Your task to perform on an android device: Open calendar and show me the second week of next month Image 0: 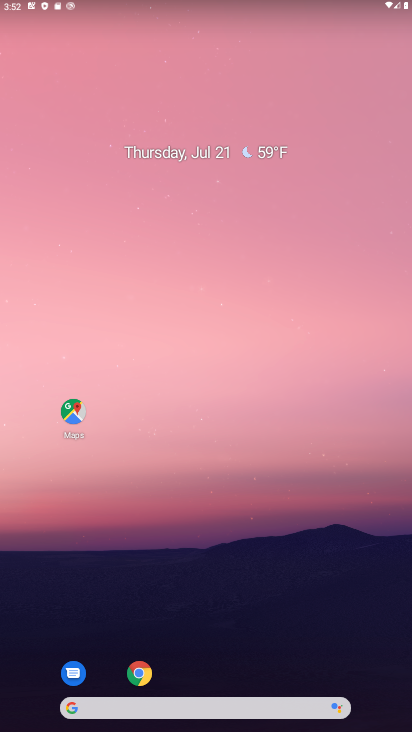
Step 0: drag from (393, 697) to (330, 135)
Your task to perform on an android device: Open calendar and show me the second week of next month Image 1: 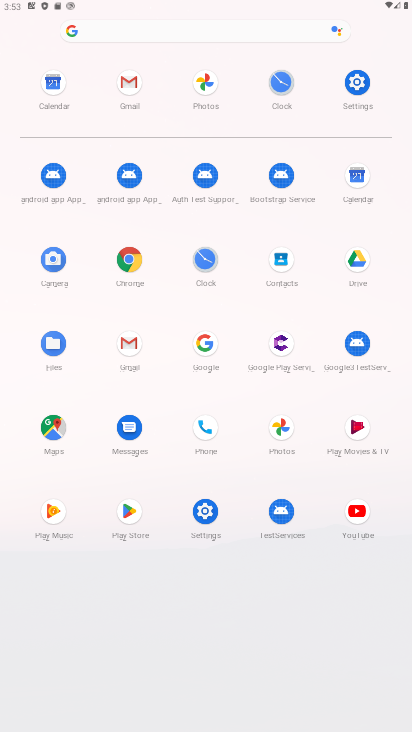
Step 1: click (356, 176)
Your task to perform on an android device: Open calendar and show me the second week of next month Image 2: 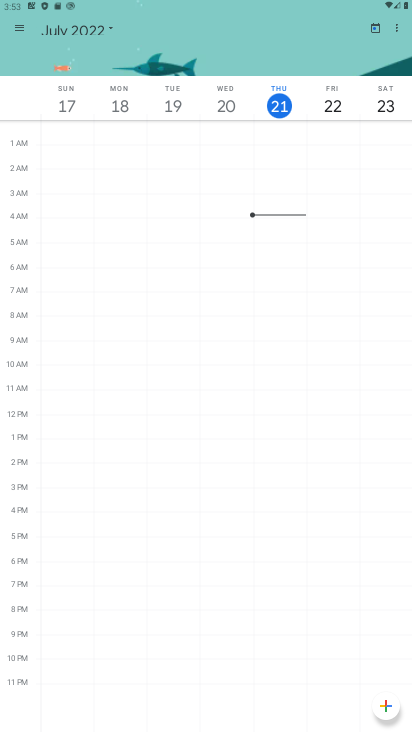
Step 2: click (103, 23)
Your task to perform on an android device: Open calendar and show me the second week of next month Image 3: 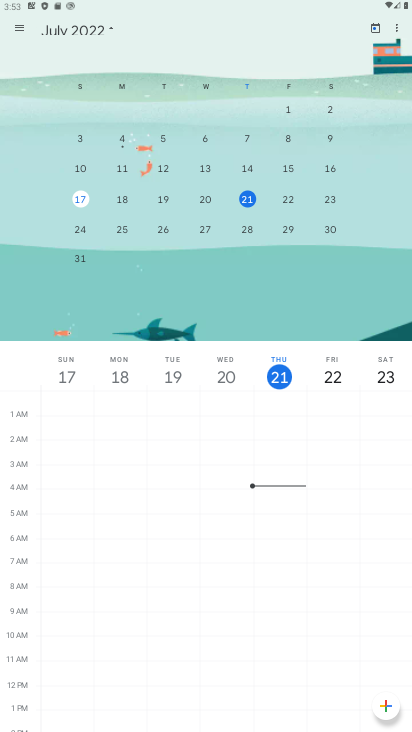
Step 3: drag from (294, 196) to (1, 164)
Your task to perform on an android device: Open calendar and show me the second week of next month Image 4: 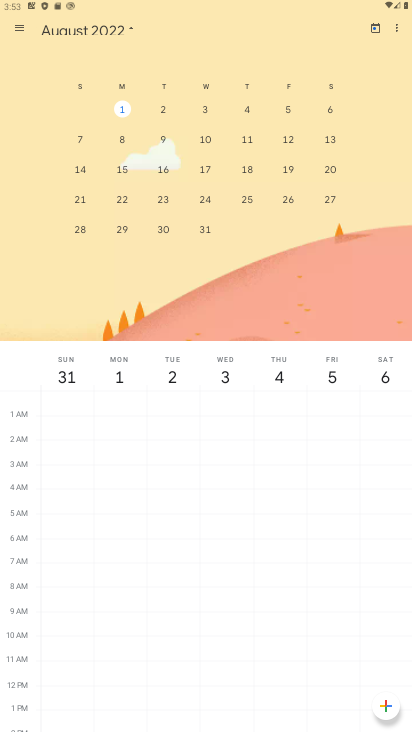
Step 4: click (82, 166)
Your task to perform on an android device: Open calendar and show me the second week of next month Image 5: 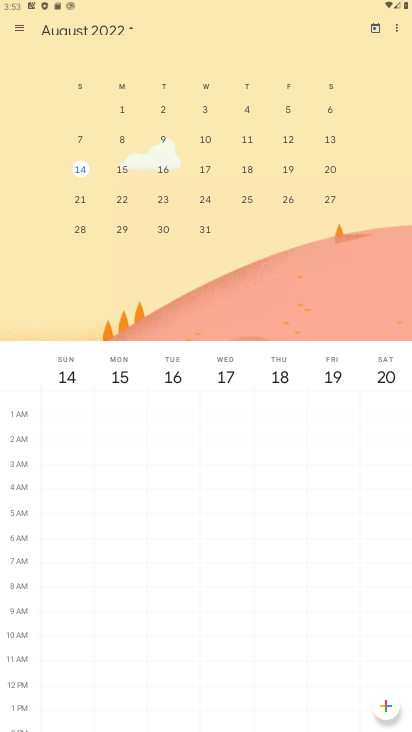
Step 5: task complete